Your task to perform on an android device: open chrome and create a bookmark for the current page Image 0: 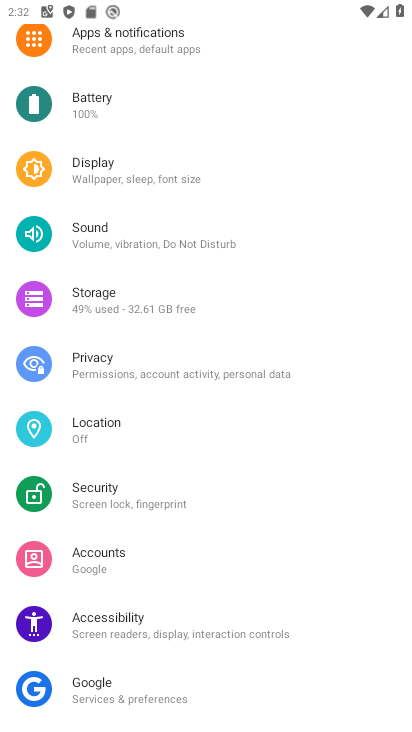
Step 0: press home button
Your task to perform on an android device: open chrome and create a bookmark for the current page Image 1: 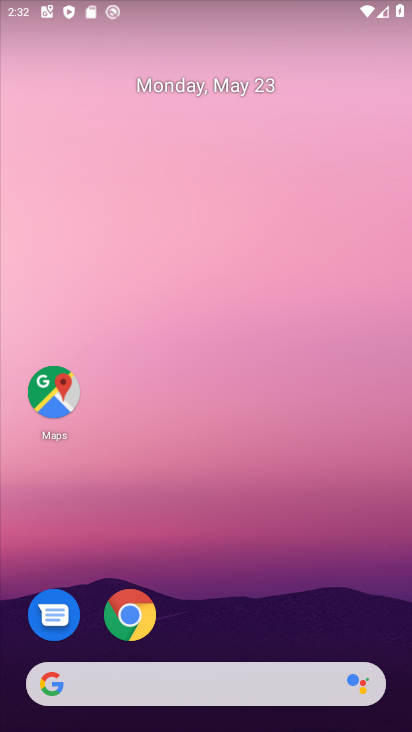
Step 1: click (139, 627)
Your task to perform on an android device: open chrome and create a bookmark for the current page Image 2: 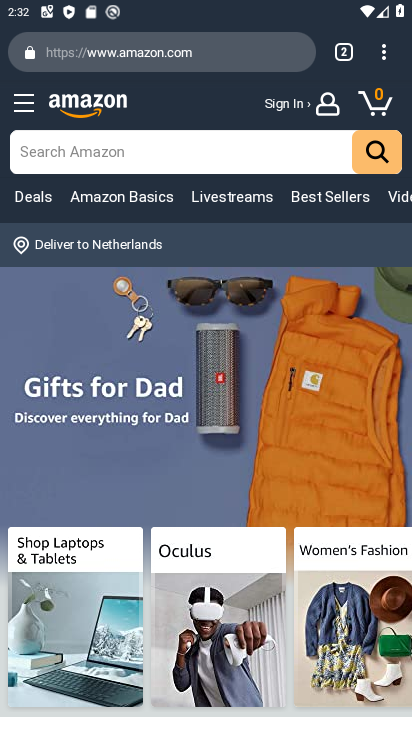
Step 2: click (388, 60)
Your task to perform on an android device: open chrome and create a bookmark for the current page Image 3: 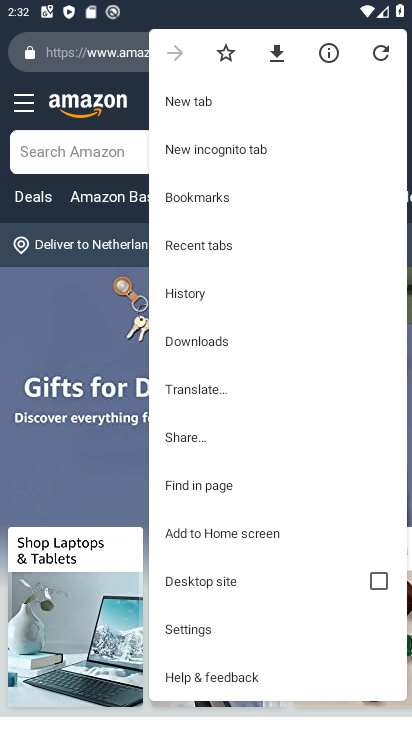
Step 3: click (222, 58)
Your task to perform on an android device: open chrome and create a bookmark for the current page Image 4: 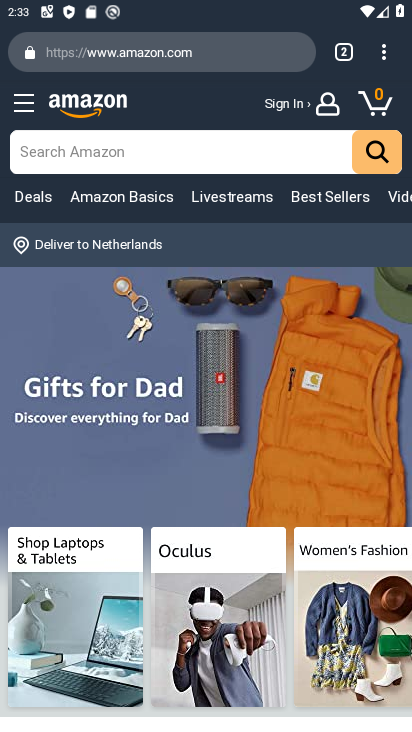
Step 4: task complete